Your task to perform on an android device: clear history in the chrome app Image 0: 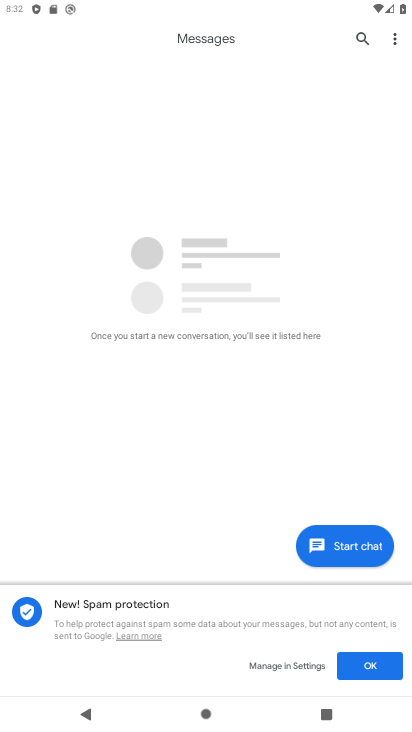
Step 0: press home button
Your task to perform on an android device: clear history in the chrome app Image 1: 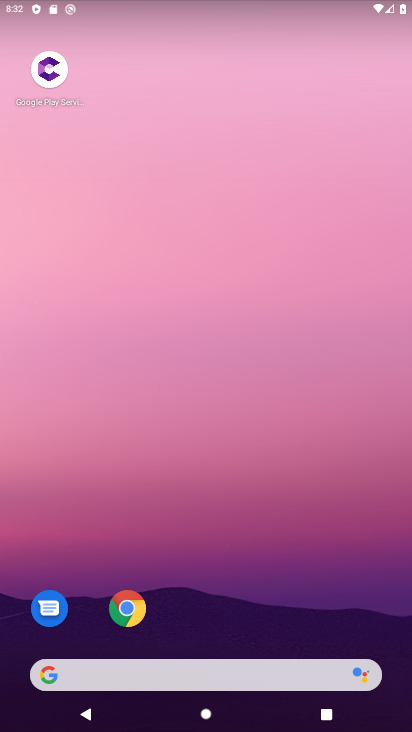
Step 1: click (123, 601)
Your task to perform on an android device: clear history in the chrome app Image 2: 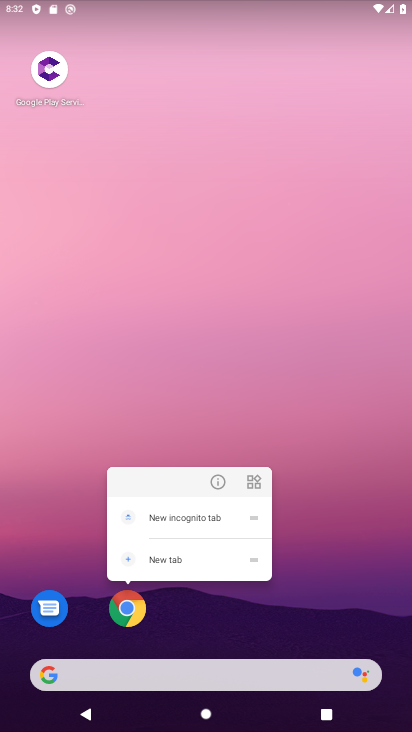
Step 2: click (122, 601)
Your task to perform on an android device: clear history in the chrome app Image 3: 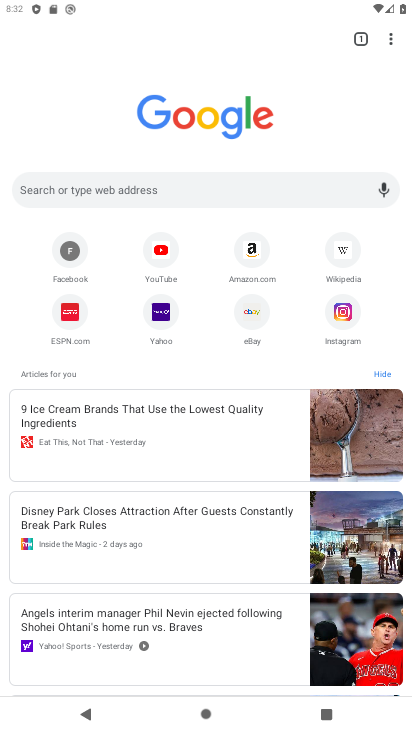
Step 3: click (391, 35)
Your task to perform on an android device: clear history in the chrome app Image 4: 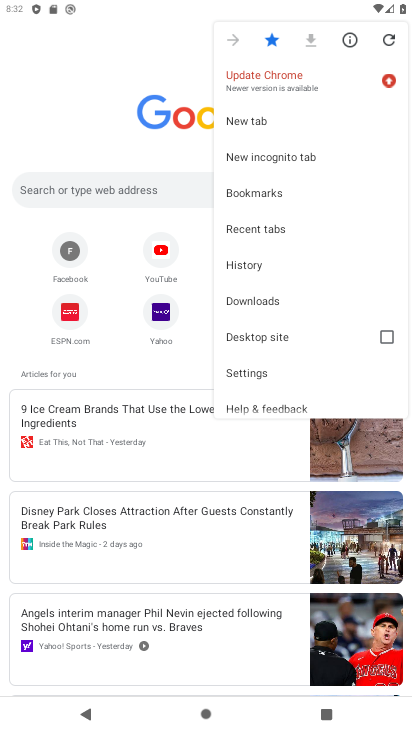
Step 4: click (261, 270)
Your task to perform on an android device: clear history in the chrome app Image 5: 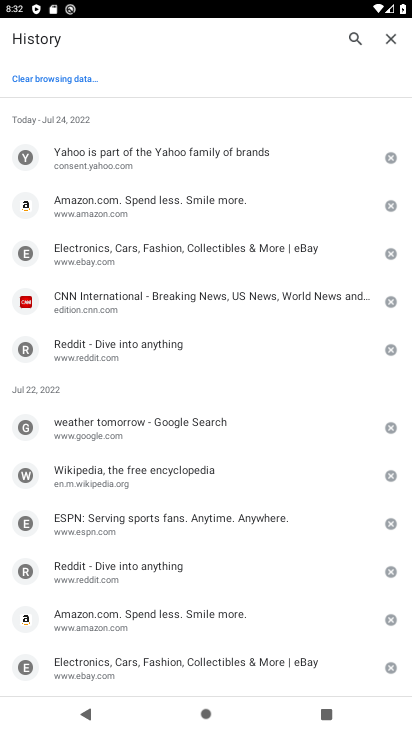
Step 5: click (67, 84)
Your task to perform on an android device: clear history in the chrome app Image 6: 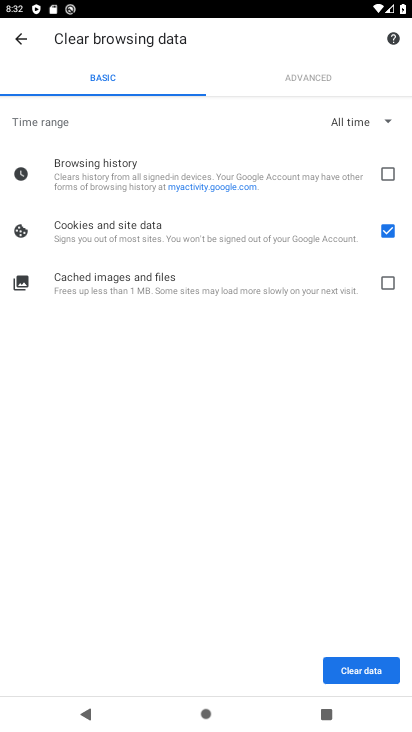
Step 6: click (391, 176)
Your task to perform on an android device: clear history in the chrome app Image 7: 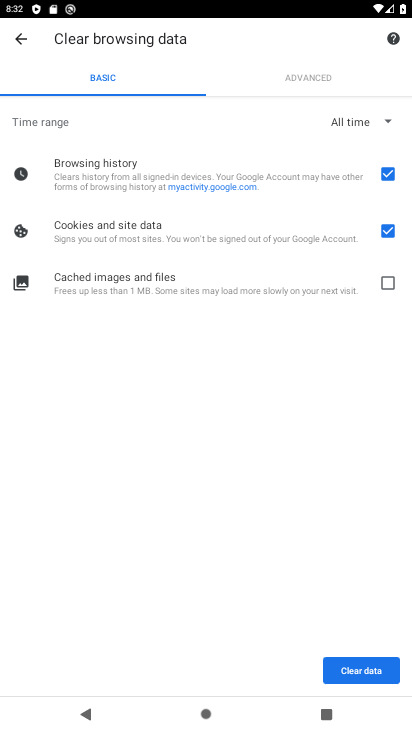
Step 7: click (384, 272)
Your task to perform on an android device: clear history in the chrome app Image 8: 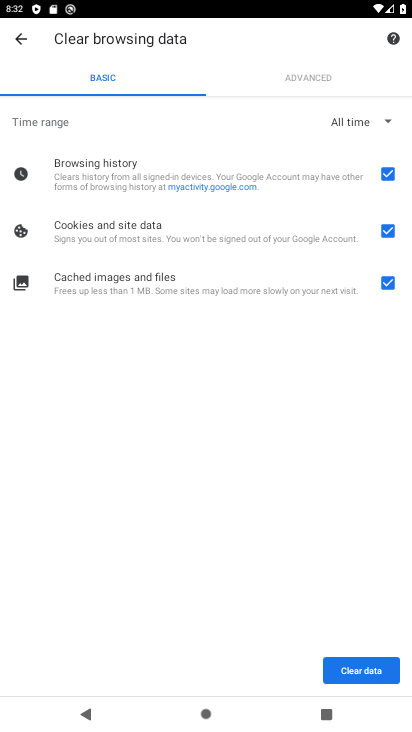
Step 8: click (358, 655)
Your task to perform on an android device: clear history in the chrome app Image 9: 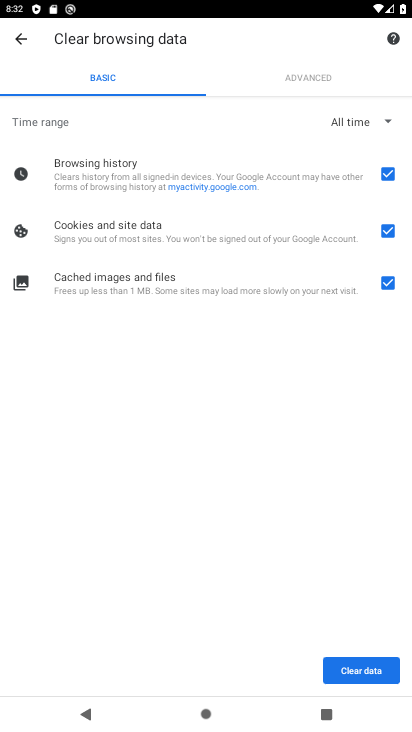
Step 9: click (375, 670)
Your task to perform on an android device: clear history in the chrome app Image 10: 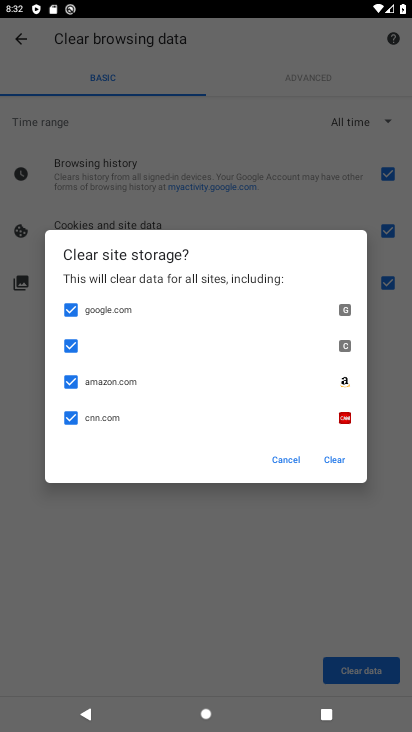
Step 10: click (329, 459)
Your task to perform on an android device: clear history in the chrome app Image 11: 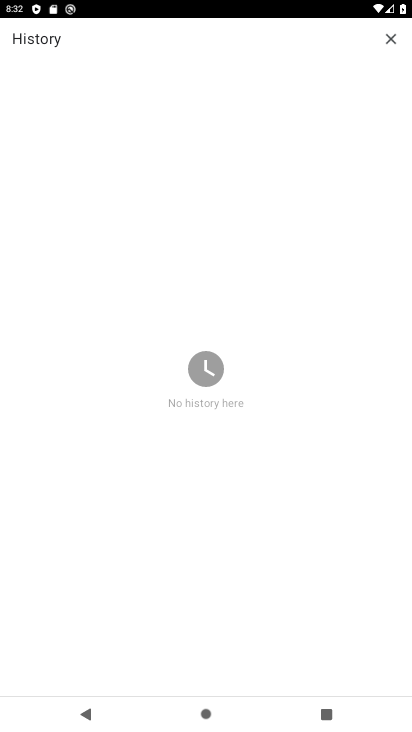
Step 11: task complete